Your task to perform on an android device: toggle javascript in the chrome app Image 0: 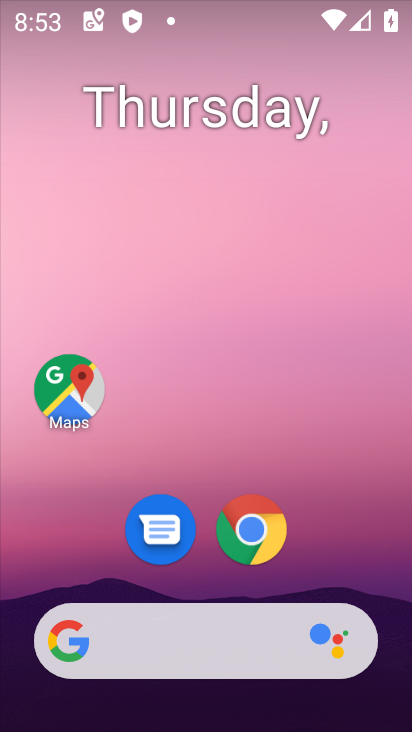
Step 0: click (248, 529)
Your task to perform on an android device: toggle javascript in the chrome app Image 1: 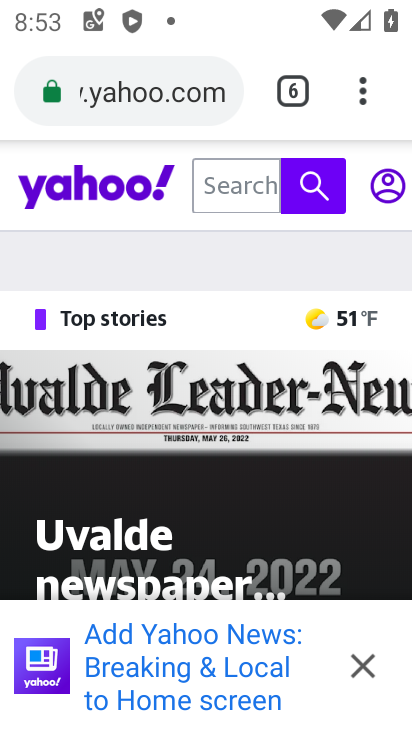
Step 1: click (362, 99)
Your task to perform on an android device: toggle javascript in the chrome app Image 2: 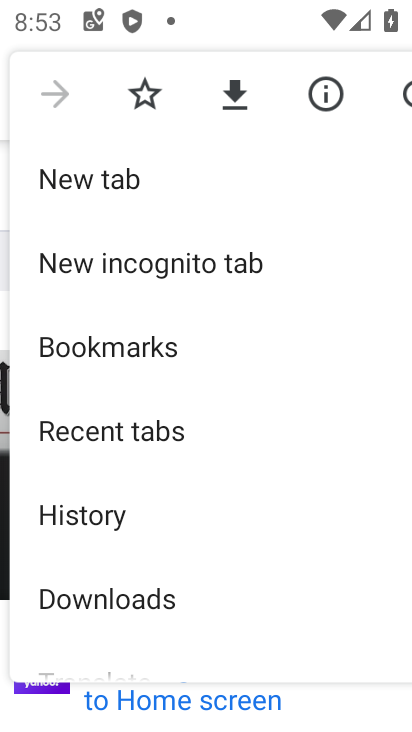
Step 2: drag from (164, 649) to (195, 164)
Your task to perform on an android device: toggle javascript in the chrome app Image 3: 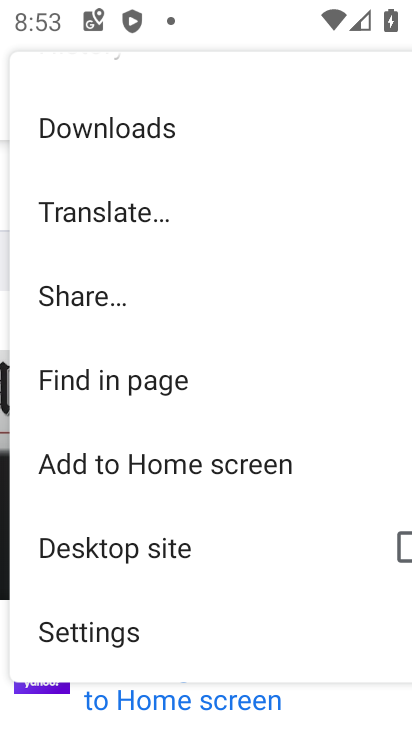
Step 3: click (127, 633)
Your task to perform on an android device: toggle javascript in the chrome app Image 4: 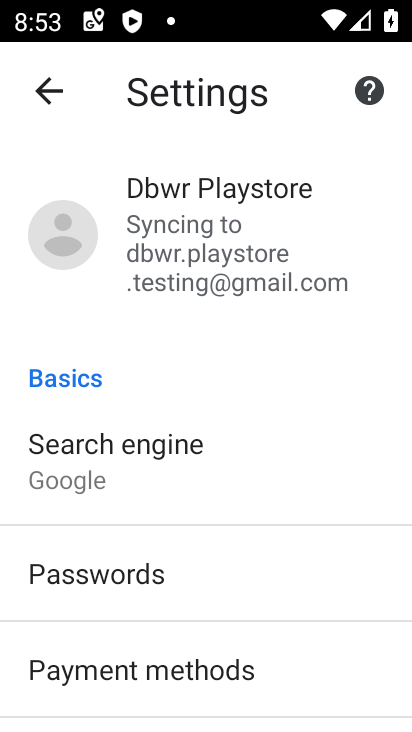
Step 4: drag from (131, 703) to (181, 219)
Your task to perform on an android device: toggle javascript in the chrome app Image 5: 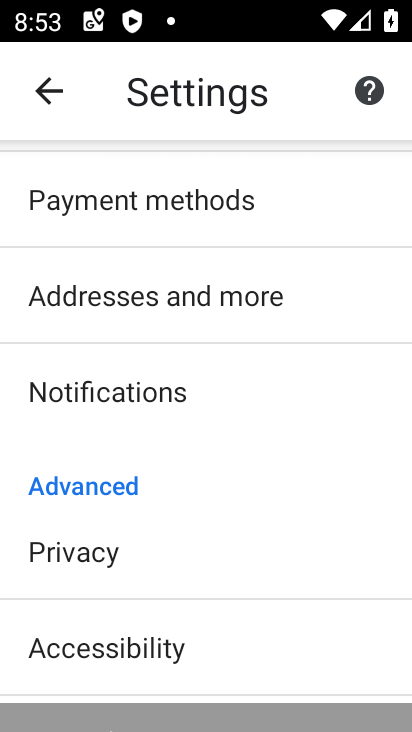
Step 5: drag from (219, 625) to (274, 225)
Your task to perform on an android device: toggle javascript in the chrome app Image 6: 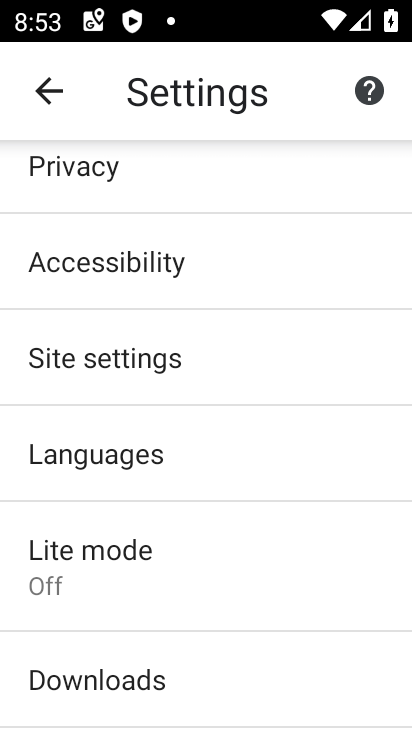
Step 6: click (131, 360)
Your task to perform on an android device: toggle javascript in the chrome app Image 7: 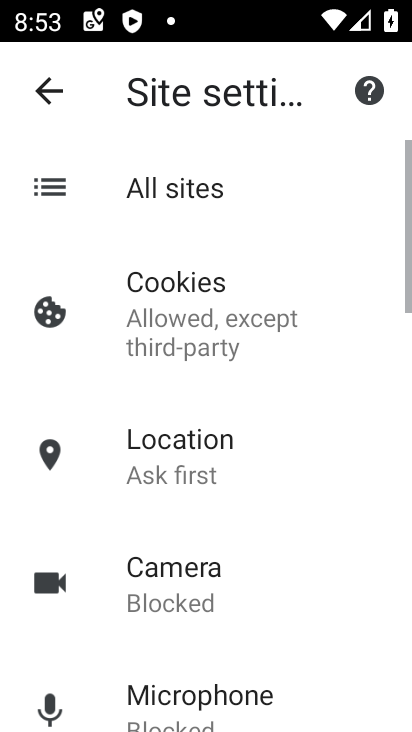
Step 7: drag from (189, 673) to (250, 218)
Your task to perform on an android device: toggle javascript in the chrome app Image 8: 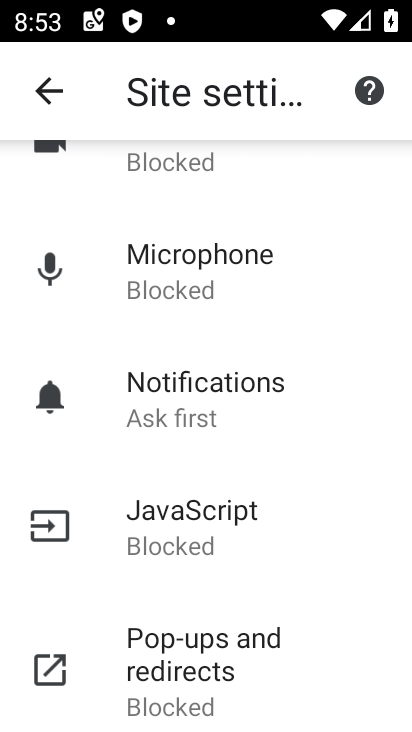
Step 8: click (178, 526)
Your task to perform on an android device: toggle javascript in the chrome app Image 9: 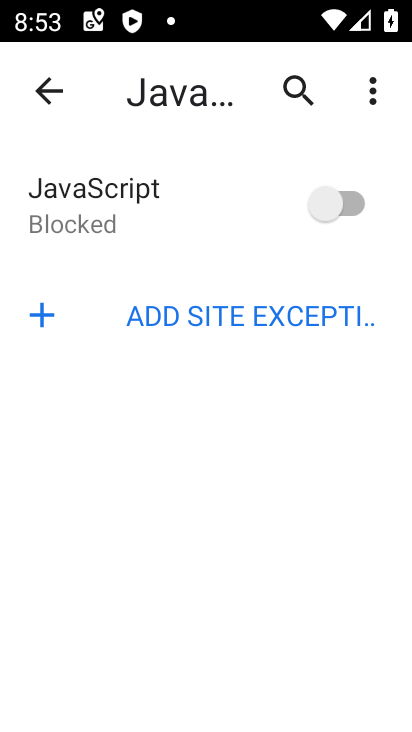
Step 9: click (354, 205)
Your task to perform on an android device: toggle javascript in the chrome app Image 10: 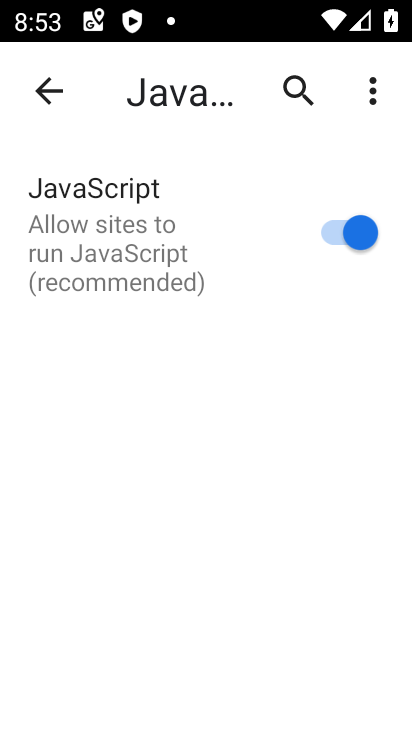
Step 10: task complete